Your task to perform on an android device: delete a single message in the gmail app Image 0: 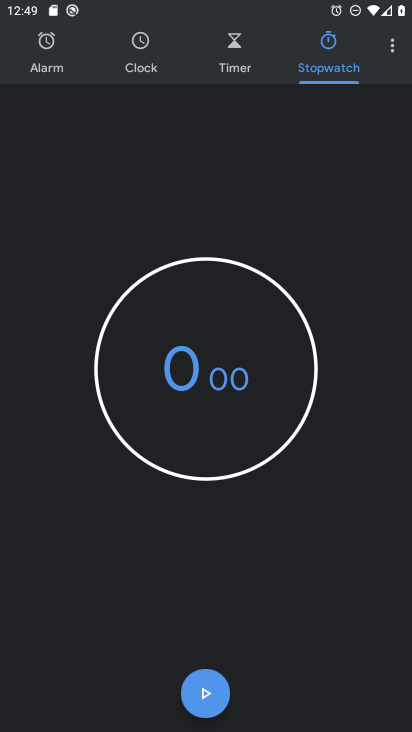
Step 0: press home button
Your task to perform on an android device: delete a single message in the gmail app Image 1: 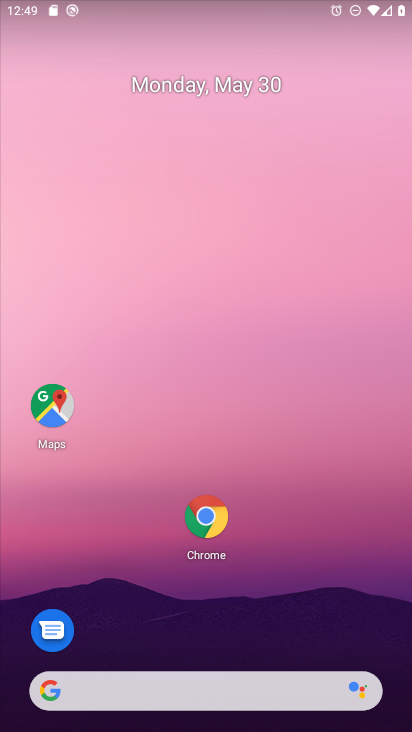
Step 1: drag from (164, 683) to (371, 3)
Your task to perform on an android device: delete a single message in the gmail app Image 2: 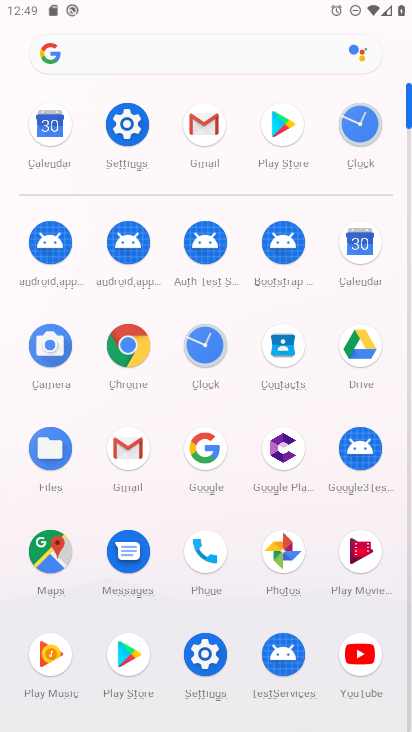
Step 2: click (204, 122)
Your task to perform on an android device: delete a single message in the gmail app Image 3: 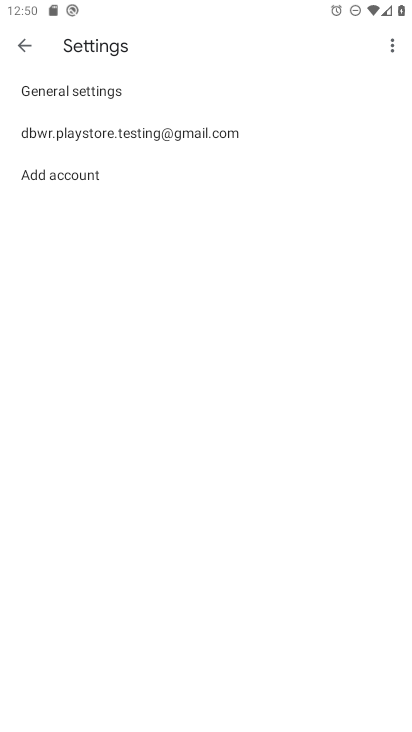
Step 3: click (31, 44)
Your task to perform on an android device: delete a single message in the gmail app Image 4: 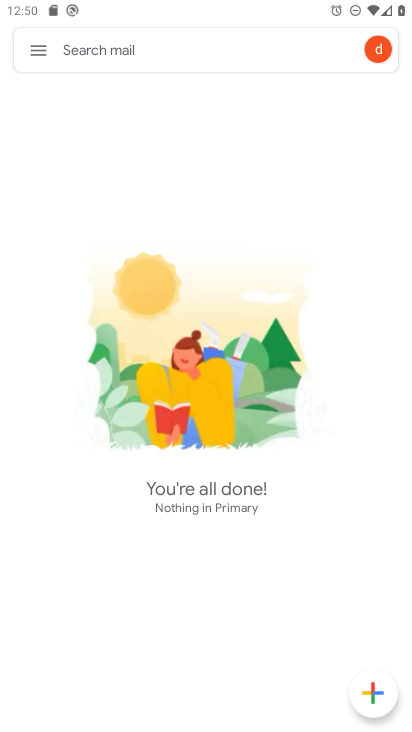
Step 4: task complete